Your task to perform on an android device: When is my next appointment? Image 0: 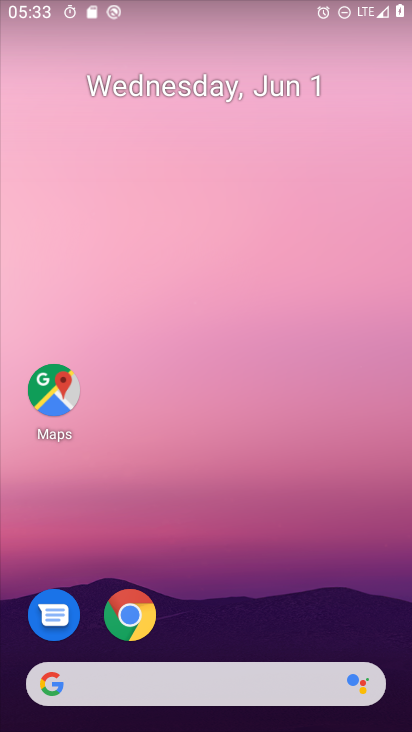
Step 0: drag from (270, 691) to (359, 15)
Your task to perform on an android device: When is my next appointment? Image 1: 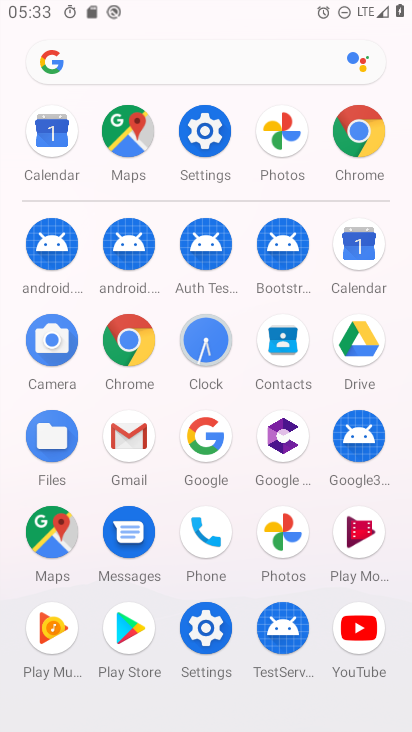
Step 1: click (374, 253)
Your task to perform on an android device: When is my next appointment? Image 2: 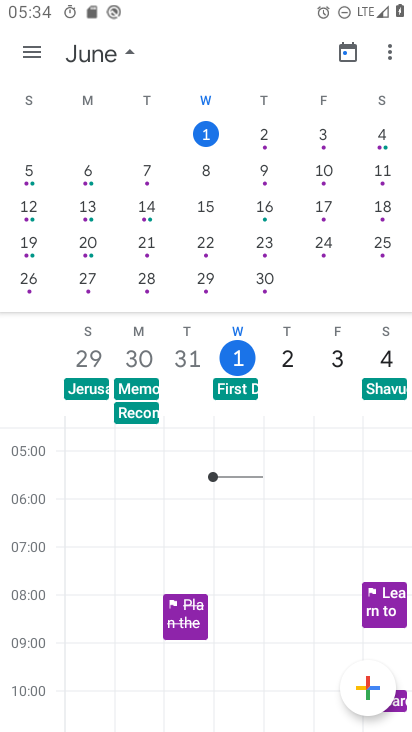
Step 2: click (260, 132)
Your task to perform on an android device: When is my next appointment? Image 3: 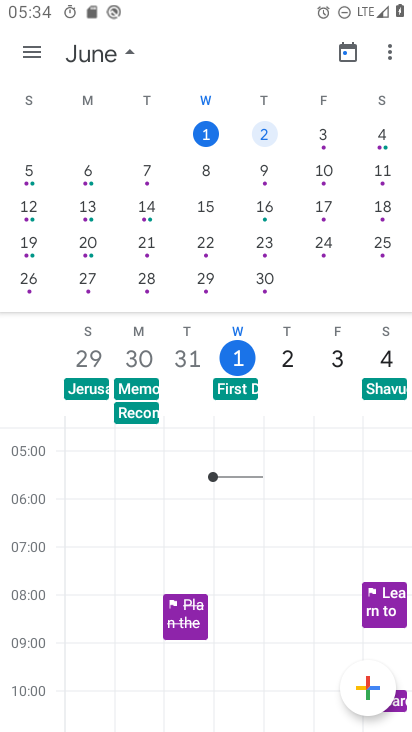
Step 3: task complete